Your task to perform on an android device: Open Yahoo.com Image 0: 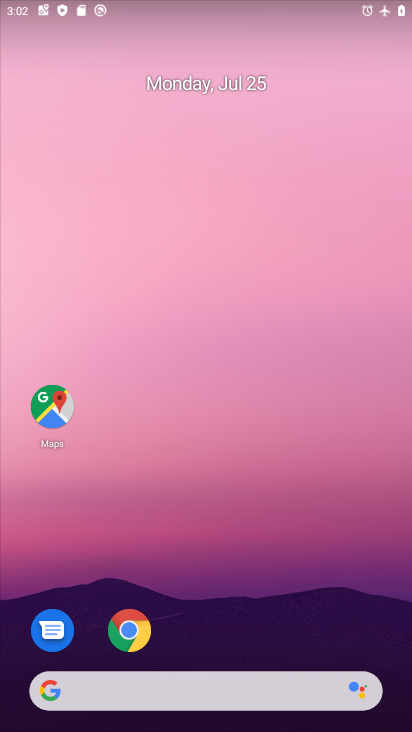
Step 0: drag from (270, 609) to (224, 293)
Your task to perform on an android device: Open Yahoo.com Image 1: 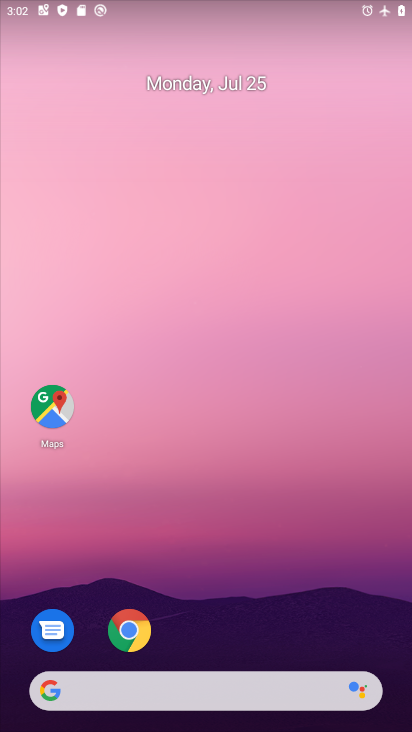
Step 1: click (271, 693)
Your task to perform on an android device: Open Yahoo.com Image 2: 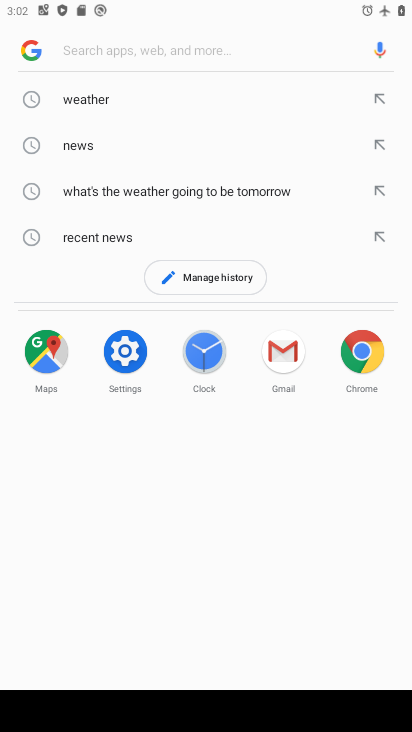
Step 2: type "yahoo.com"
Your task to perform on an android device: Open Yahoo.com Image 3: 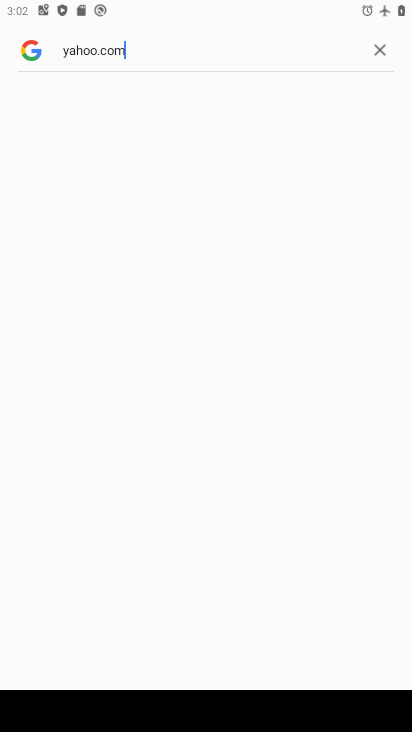
Step 3: task complete